Your task to perform on an android device: Open location settings Image 0: 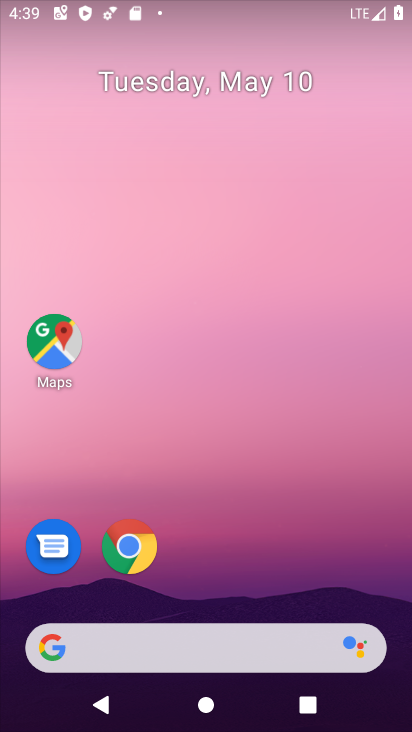
Step 0: drag from (207, 622) to (293, 168)
Your task to perform on an android device: Open location settings Image 1: 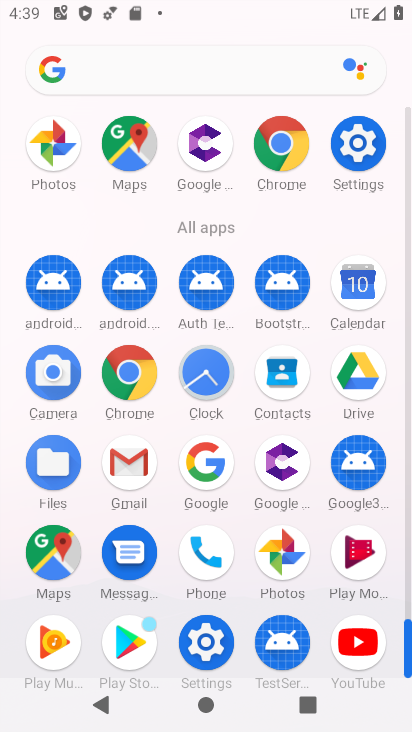
Step 1: click (218, 641)
Your task to perform on an android device: Open location settings Image 2: 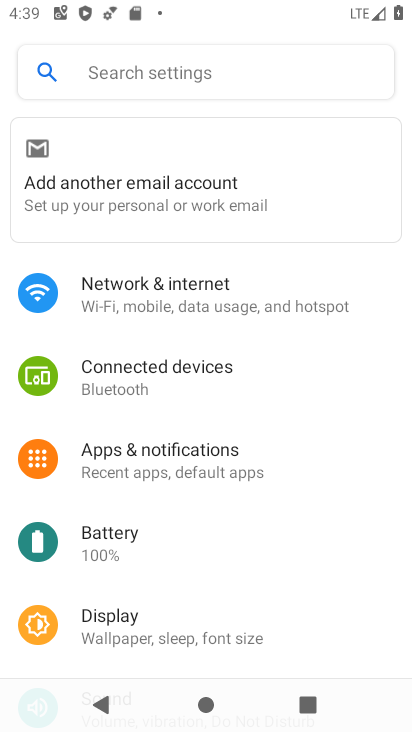
Step 2: drag from (144, 596) to (226, 240)
Your task to perform on an android device: Open location settings Image 3: 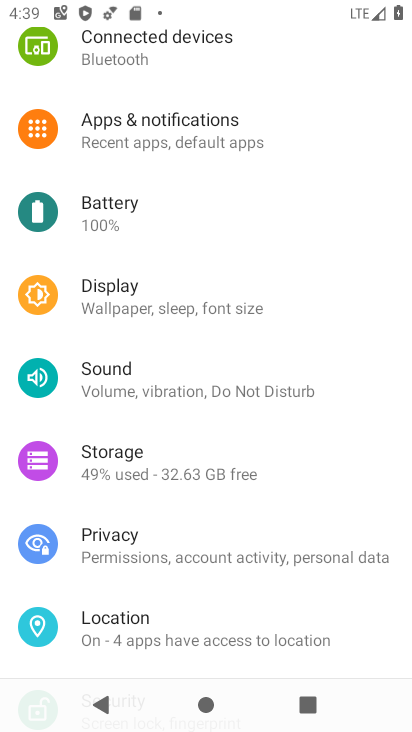
Step 3: click (154, 615)
Your task to perform on an android device: Open location settings Image 4: 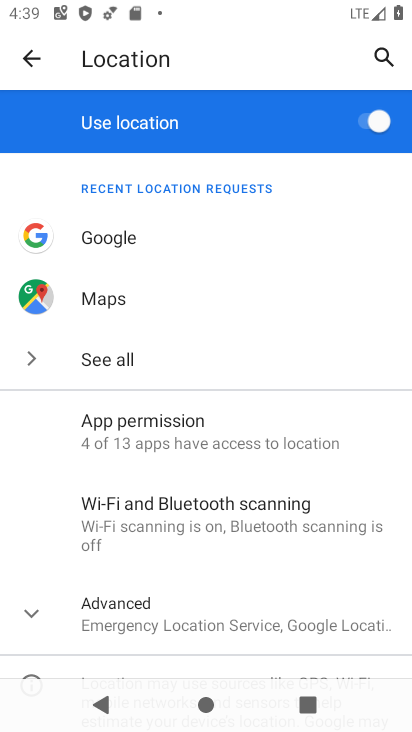
Step 4: task complete